Your task to perform on an android device: turn notification dots on Image 0: 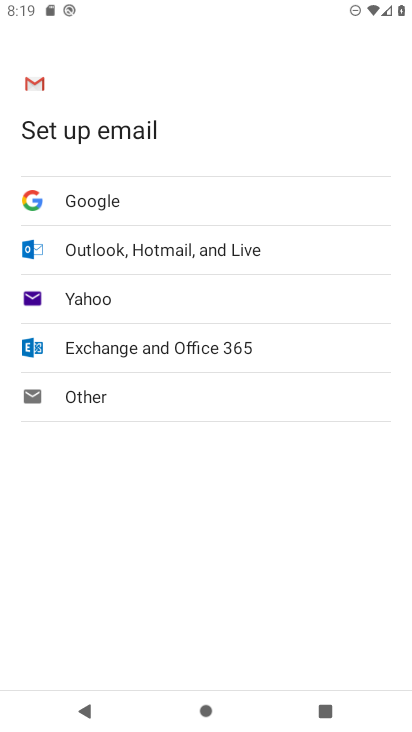
Step 0: press home button
Your task to perform on an android device: turn notification dots on Image 1: 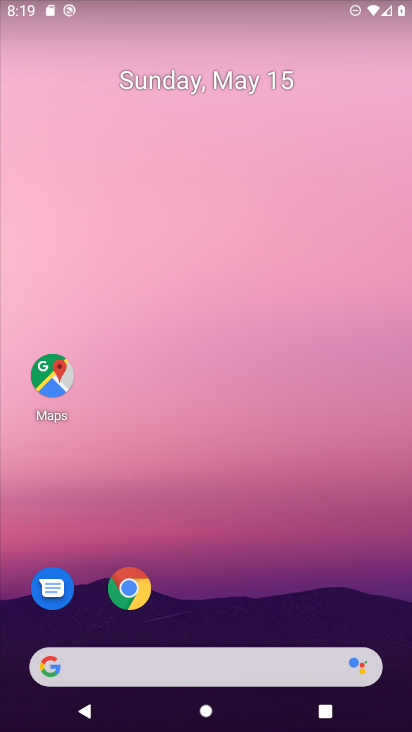
Step 1: drag from (206, 629) to (201, 125)
Your task to perform on an android device: turn notification dots on Image 2: 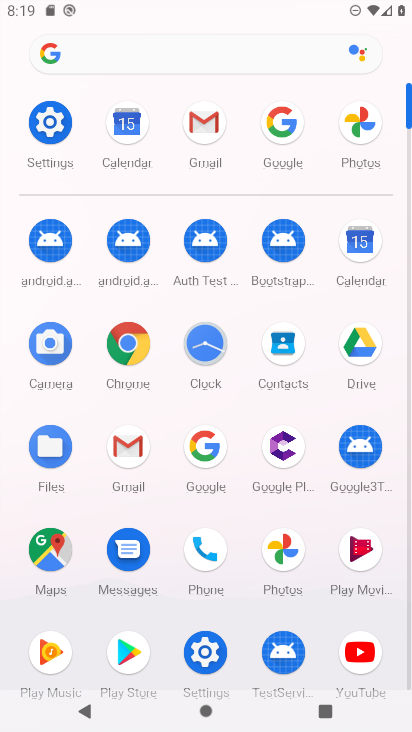
Step 2: click (43, 116)
Your task to perform on an android device: turn notification dots on Image 3: 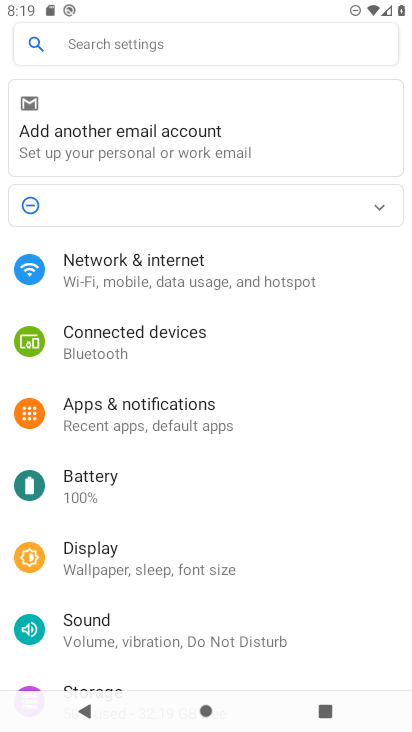
Step 3: click (173, 414)
Your task to perform on an android device: turn notification dots on Image 4: 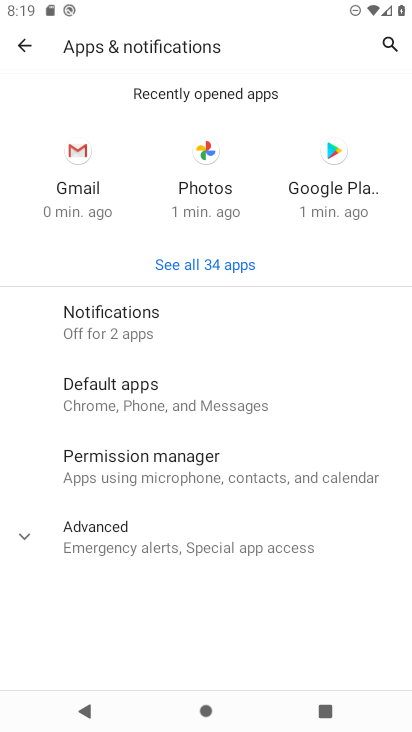
Step 4: click (175, 316)
Your task to perform on an android device: turn notification dots on Image 5: 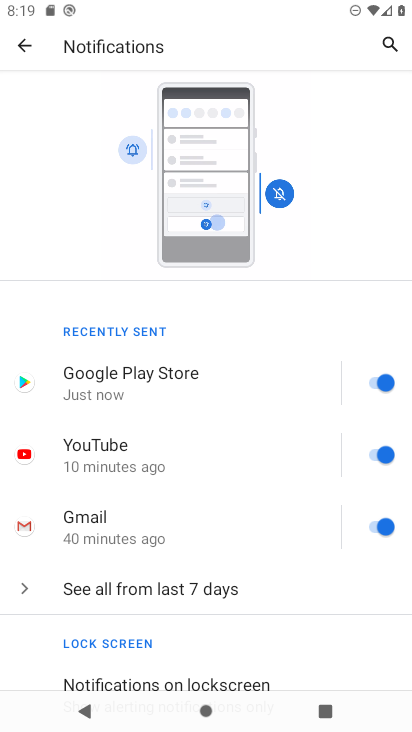
Step 5: drag from (228, 645) to (223, 234)
Your task to perform on an android device: turn notification dots on Image 6: 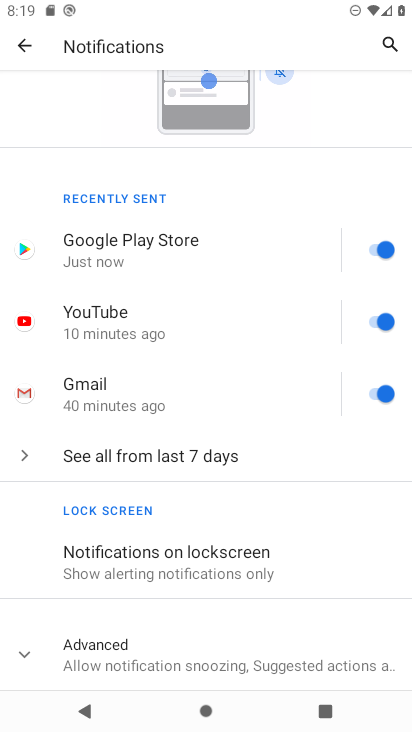
Step 6: click (21, 649)
Your task to perform on an android device: turn notification dots on Image 7: 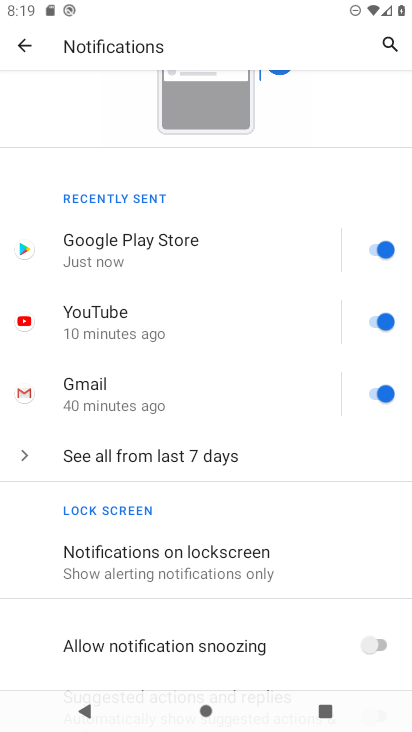
Step 7: drag from (255, 628) to (253, 167)
Your task to perform on an android device: turn notification dots on Image 8: 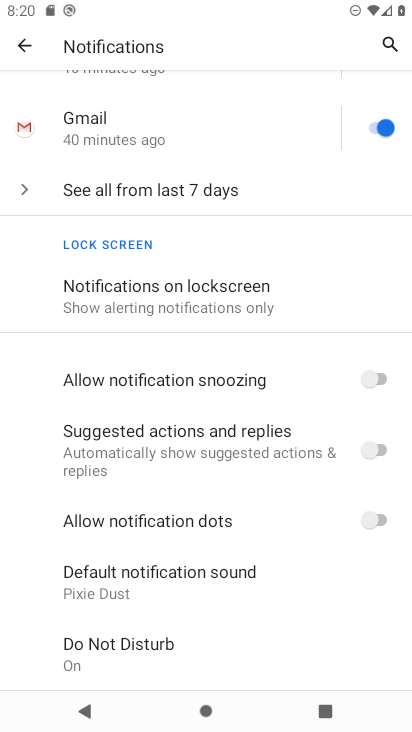
Step 8: click (374, 517)
Your task to perform on an android device: turn notification dots on Image 9: 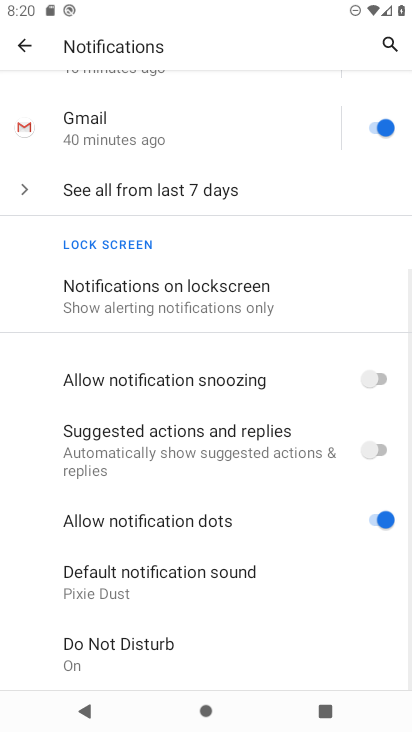
Step 9: task complete